Your task to perform on an android device: set the timer Image 0: 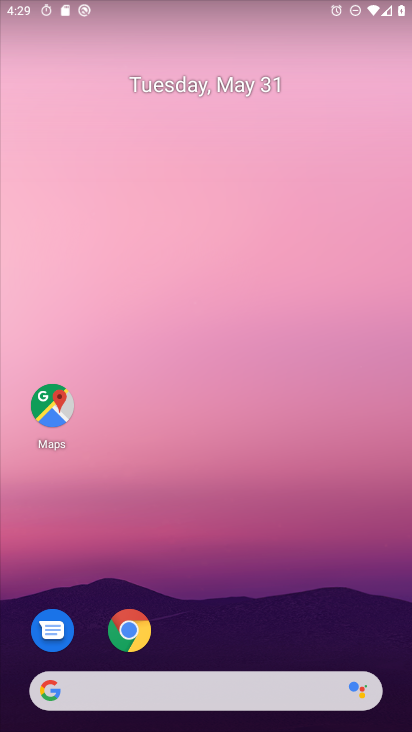
Step 0: drag from (254, 696) to (278, 1)
Your task to perform on an android device: set the timer Image 1: 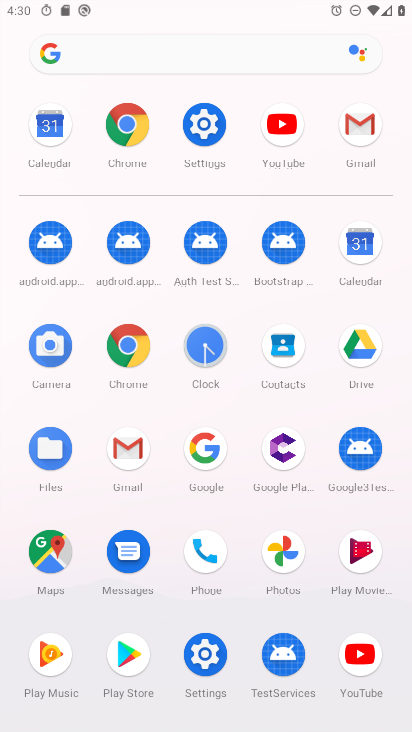
Step 1: click (212, 352)
Your task to perform on an android device: set the timer Image 2: 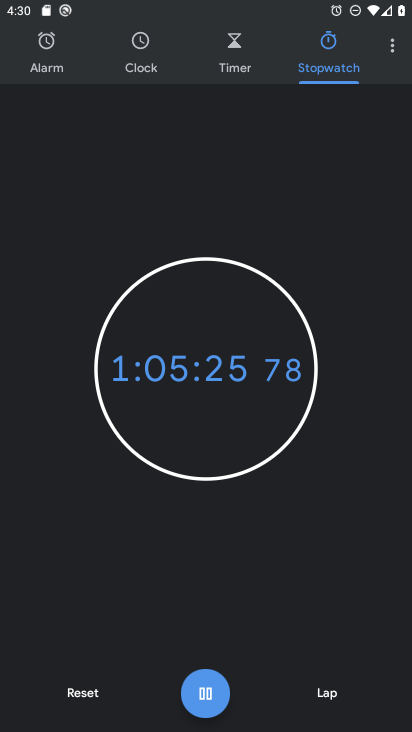
Step 2: click (237, 57)
Your task to perform on an android device: set the timer Image 3: 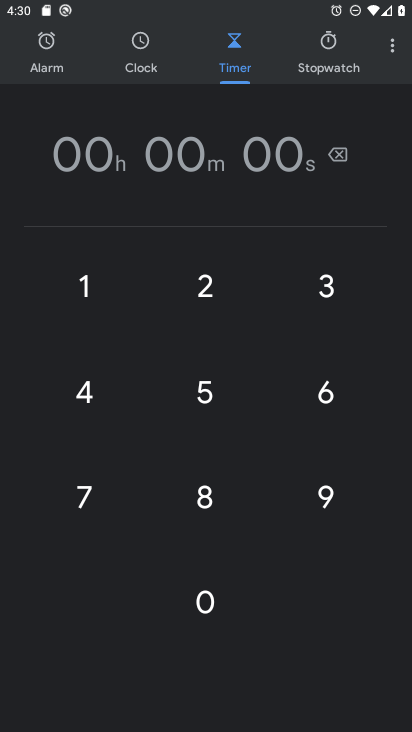
Step 3: click (204, 506)
Your task to perform on an android device: set the timer Image 4: 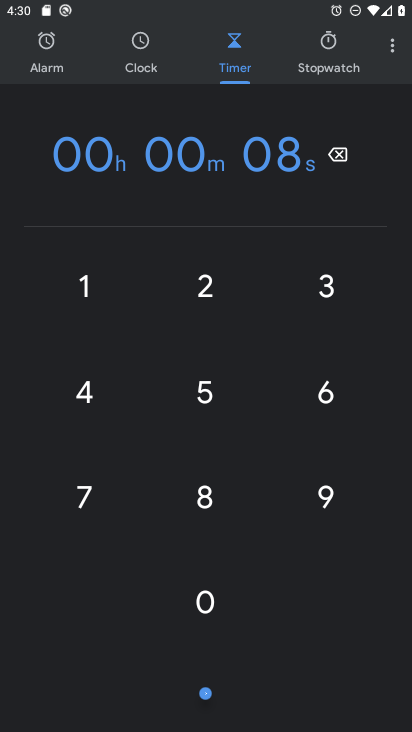
Step 4: click (325, 391)
Your task to perform on an android device: set the timer Image 5: 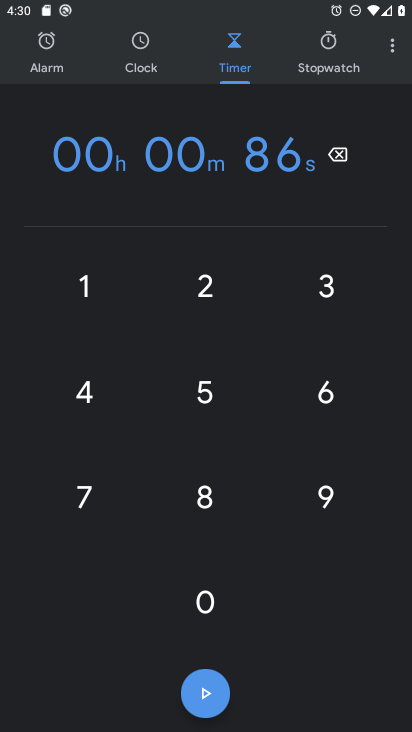
Step 5: click (213, 380)
Your task to perform on an android device: set the timer Image 6: 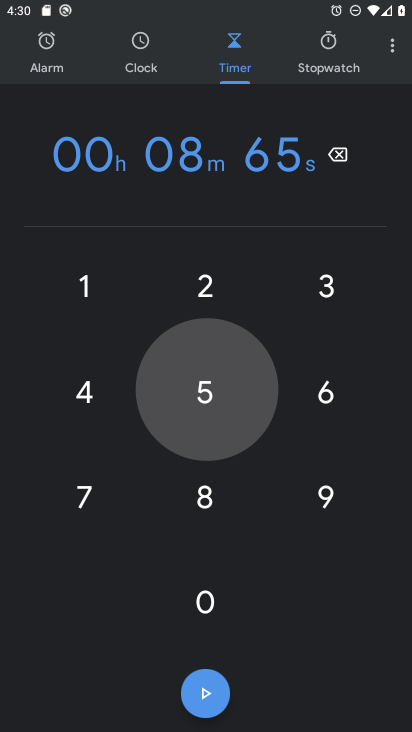
Step 6: click (191, 293)
Your task to perform on an android device: set the timer Image 7: 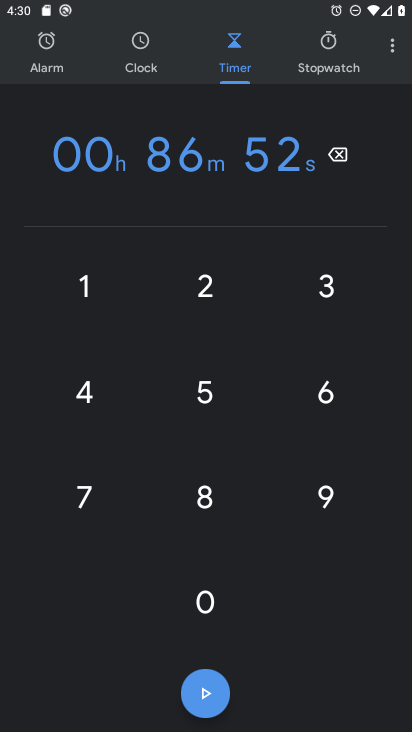
Step 7: click (101, 300)
Your task to perform on an android device: set the timer Image 8: 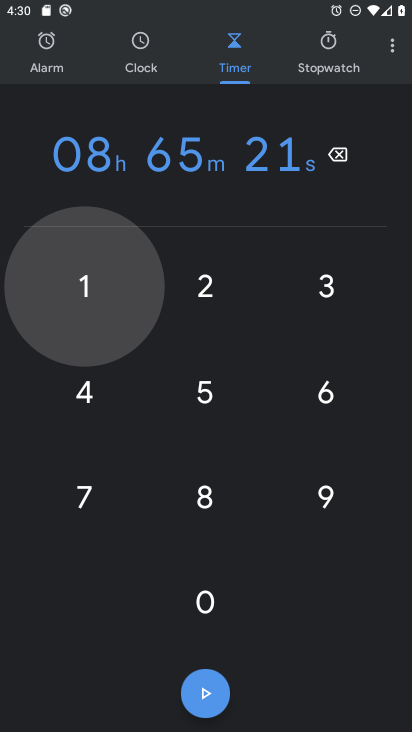
Step 8: click (218, 284)
Your task to perform on an android device: set the timer Image 9: 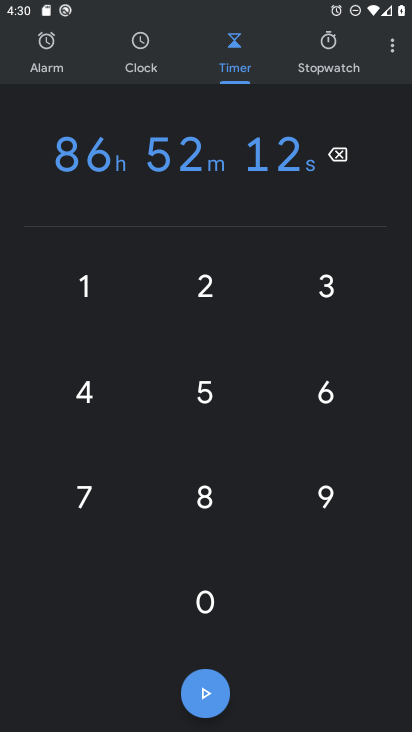
Step 9: click (210, 686)
Your task to perform on an android device: set the timer Image 10: 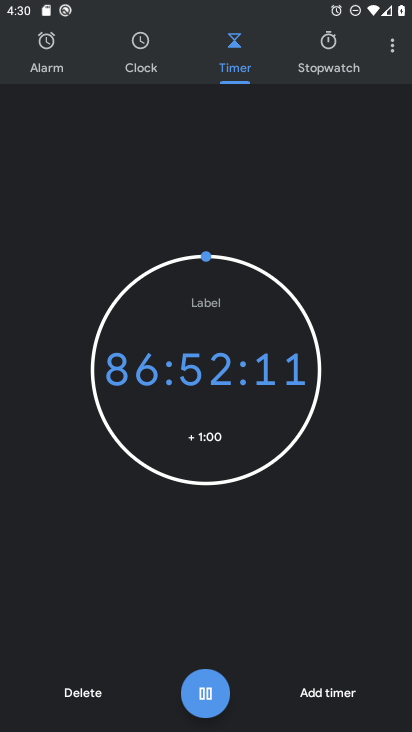
Step 10: task complete